Your task to perform on an android device: set the timer Image 0: 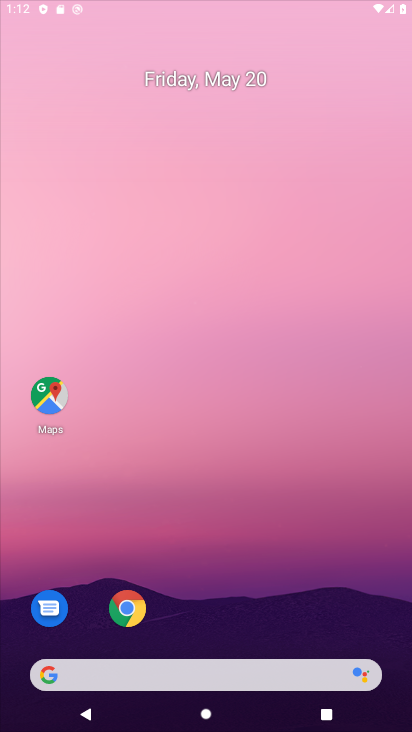
Step 0: click (262, 67)
Your task to perform on an android device: set the timer Image 1: 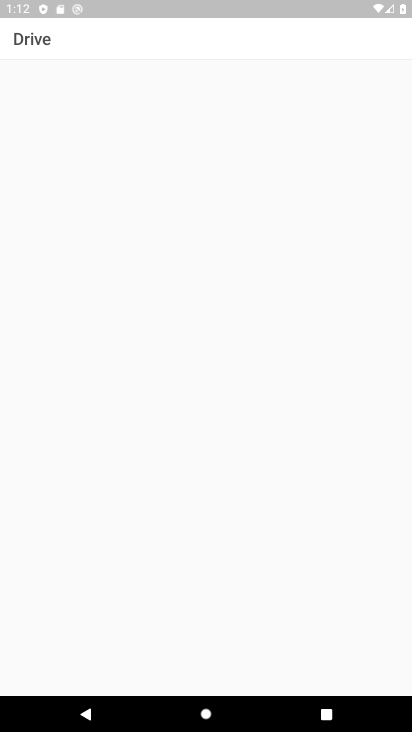
Step 1: press back button
Your task to perform on an android device: set the timer Image 2: 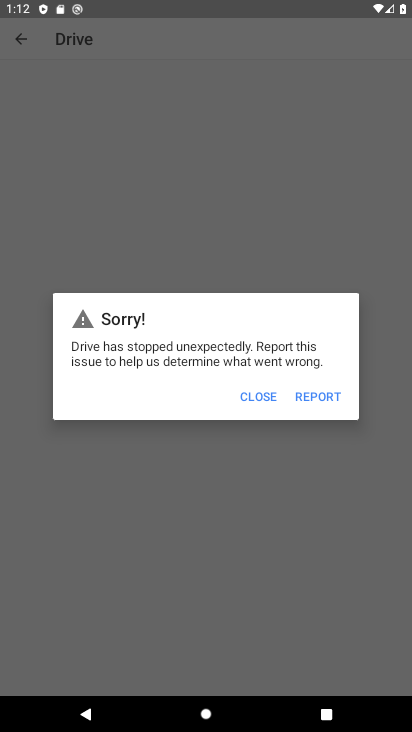
Step 2: press back button
Your task to perform on an android device: set the timer Image 3: 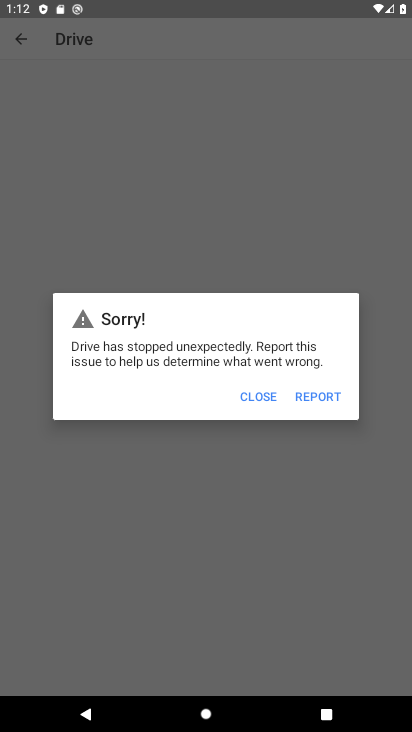
Step 3: press home button
Your task to perform on an android device: set the timer Image 4: 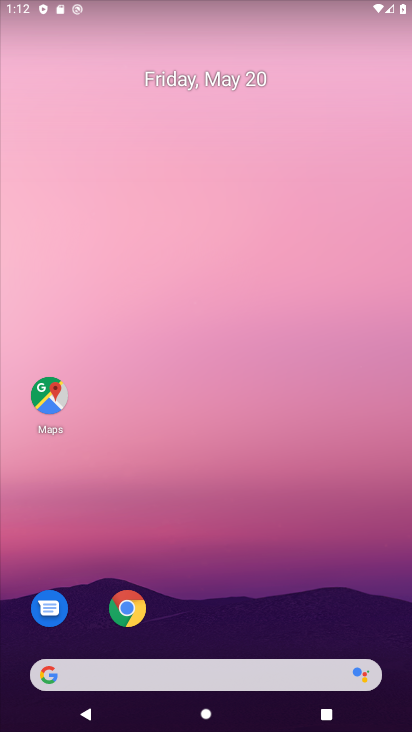
Step 4: drag from (224, 602) to (307, 21)
Your task to perform on an android device: set the timer Image 5: 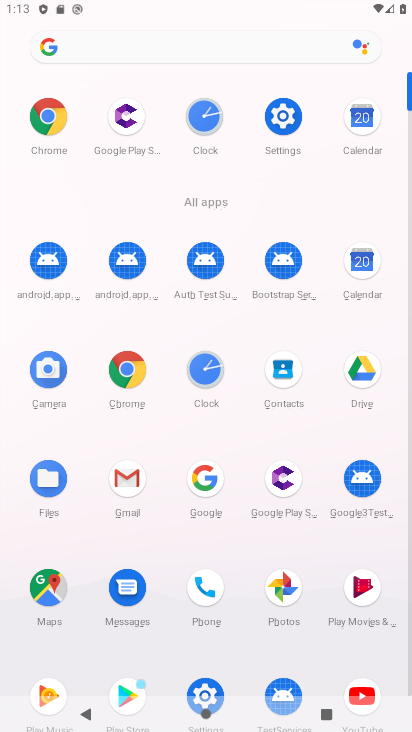
Step 5: click (202, 370)
Your task to perform on an android device: set the timer Image 6: 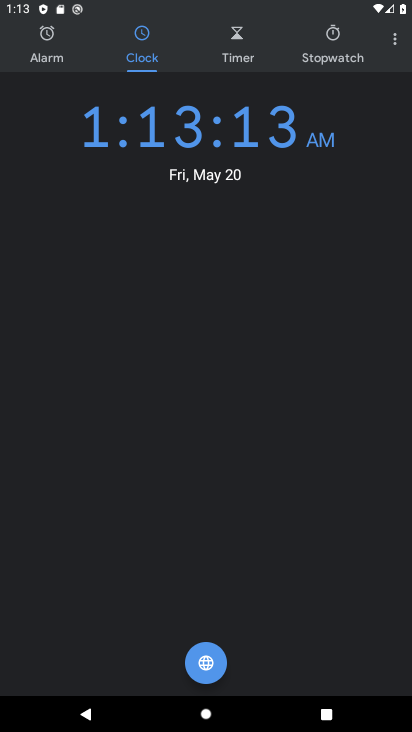
Step 6: click (231, 39)
Your task to perform on an android device: set the timer Image 7: 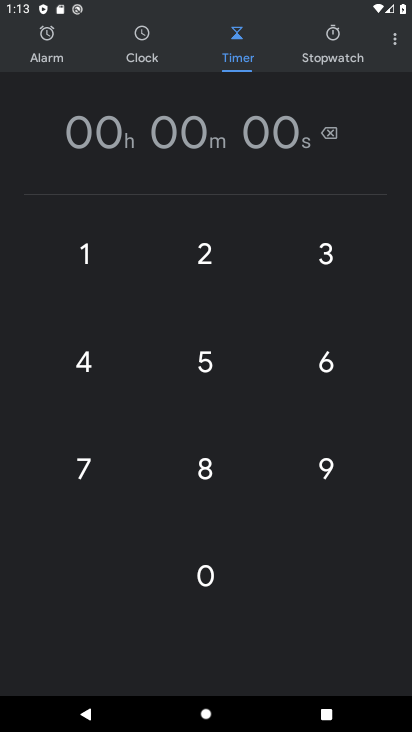
Step 7: click (189, 301)
Your task to perform on an android device: set the timer Image 8: 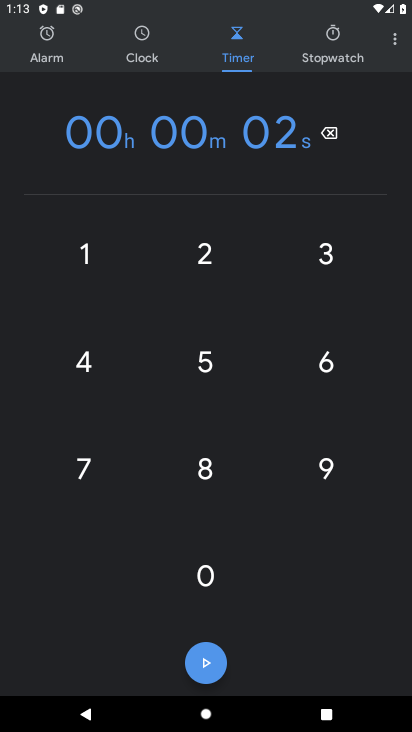
Step 8: click (307, 237)
Your task to perform on an android device: set the timer Image 9: 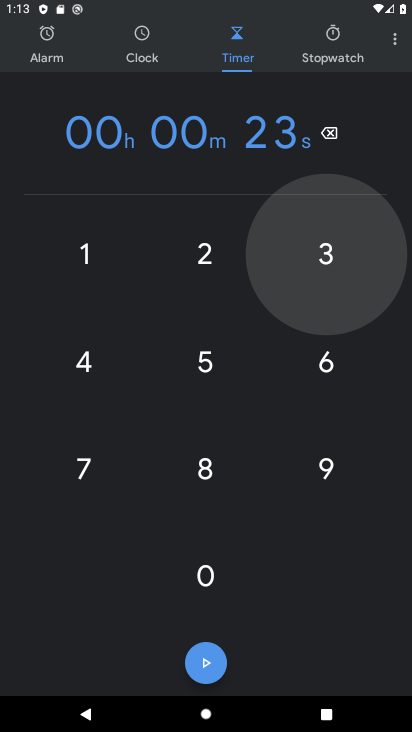
Step 9: click (215, 334)
Your task to perform on an android device: set the timer Image 10: 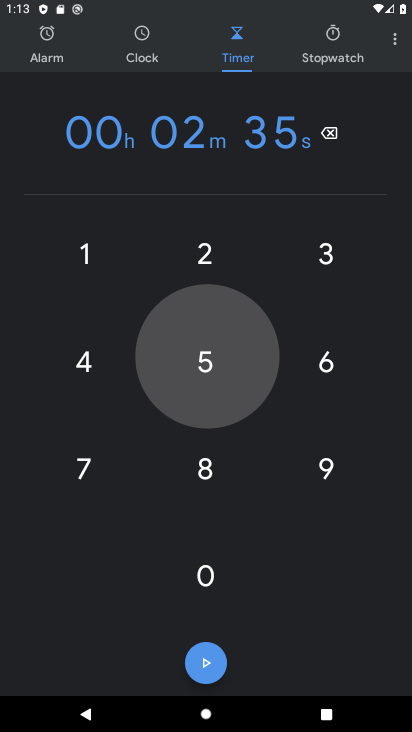
Step 10: click (332, 352)
Your task to perform on an android device: set the timer Image 11: 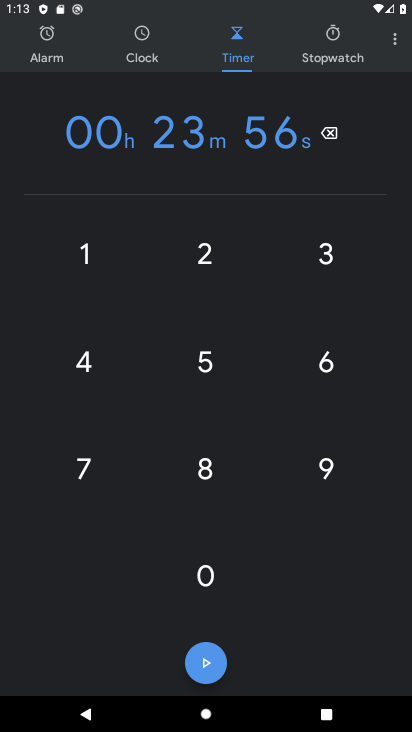
Step 11: task complete